Your task to perform on an android device: What is the recent news? Image 0: 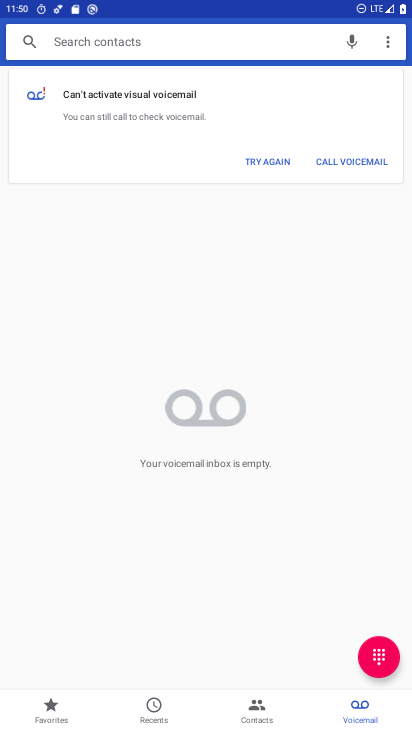
Step 0: press home button
Your task to perform on an android device: What is the recent news? Image 1: 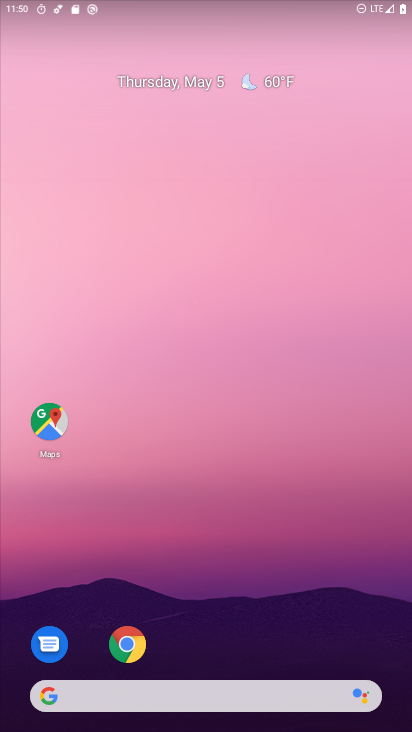
Step 1: drag from (355, 612) to (364, 6)
Your task to perform on an android device: What is the recent news? Image 2: 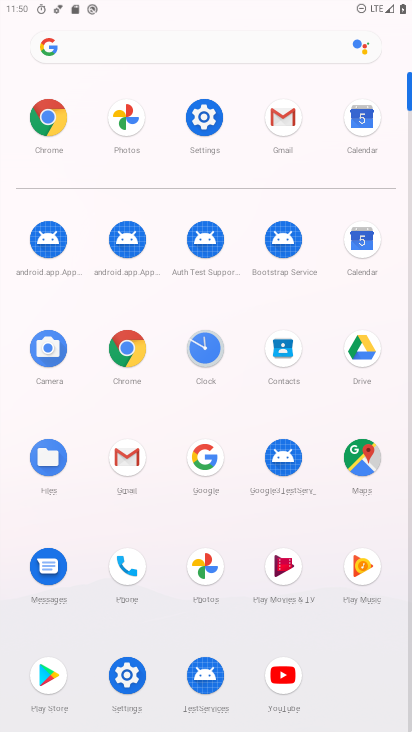
Step 2: click (46, 129)
Your task to perform on an android device: What is the recent news? Image 3: 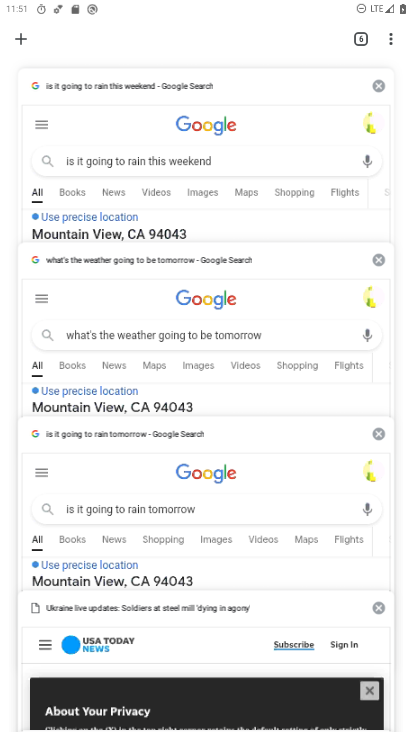
Step 3: click (13, 37)
Your task to perform on an android device: What is the recent news? Image 4: 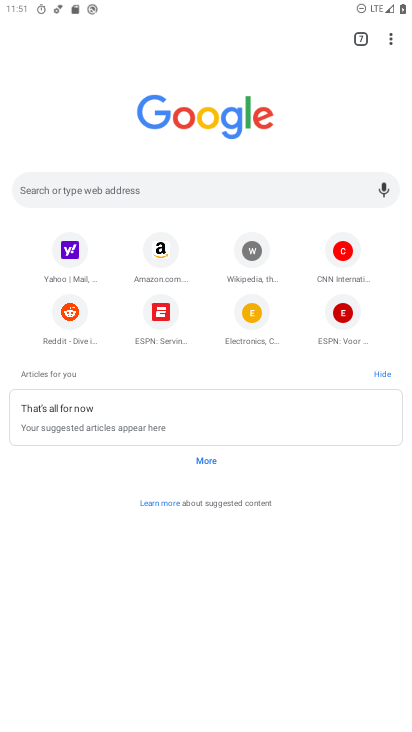
Step 4: click (260, 196)
Your task to perform on an android device: What is the recent news? Image 5: 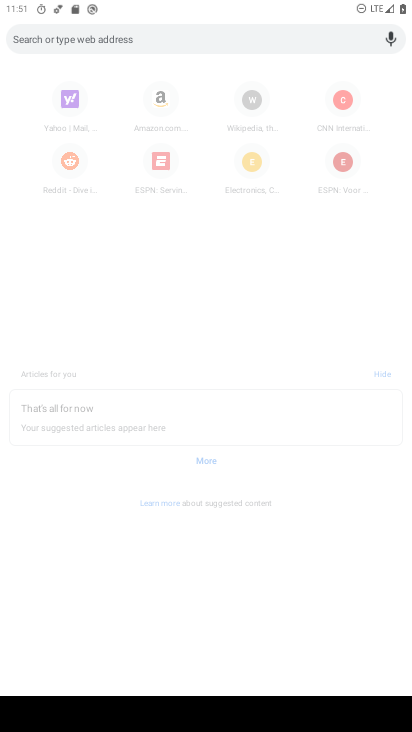
Step 5: type "what is the recent news"
Your task to perform on an android device: What is the recent news? Image 6: 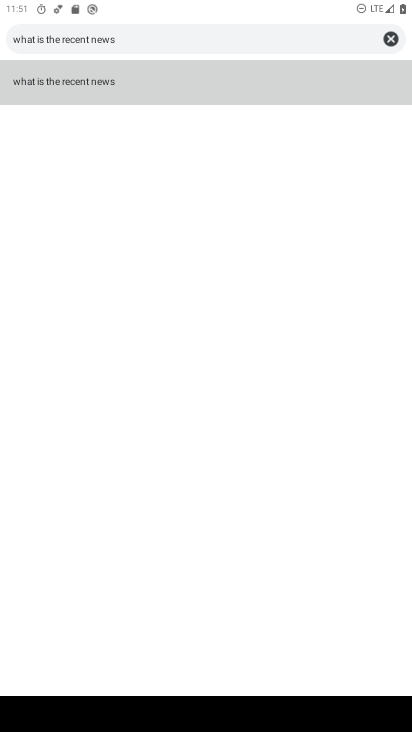
Step 6: click (61, 77)
Your task to perform on an android device: What is the recent news? Image 7: 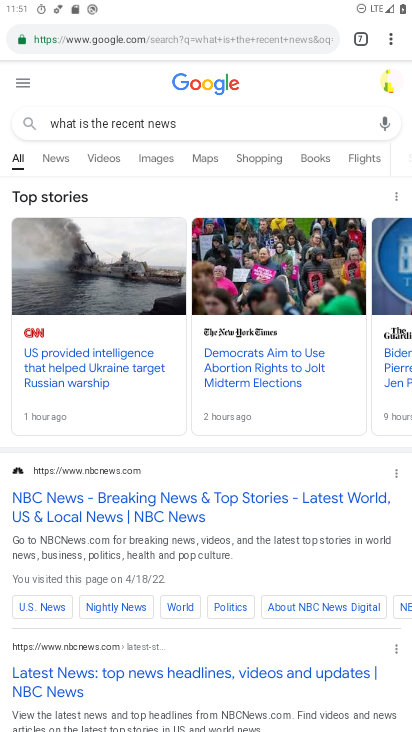
Step 7: click (81, 514)
Your task to perform on an android device: What is the recent news? Image 8: 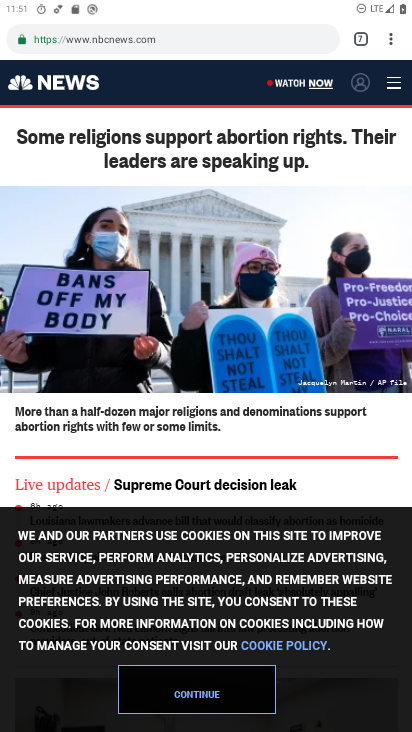
Step 8: task complete